Your task to perform on an android device: add a contact in the contacts app Image 0: 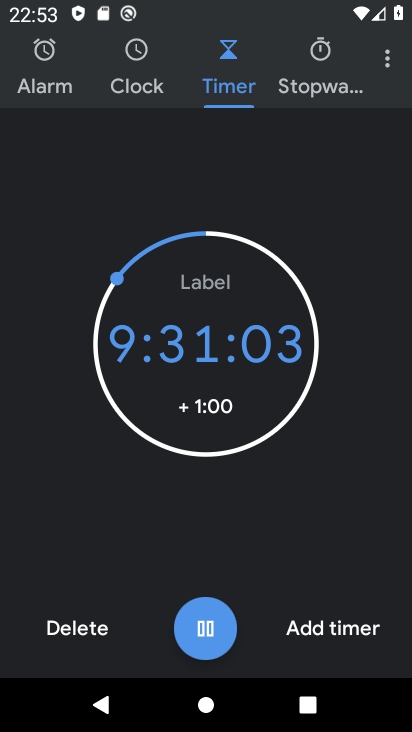
Step 0: press home button
Your task to perform on an android device: add a contact in the contacts app Image 1: 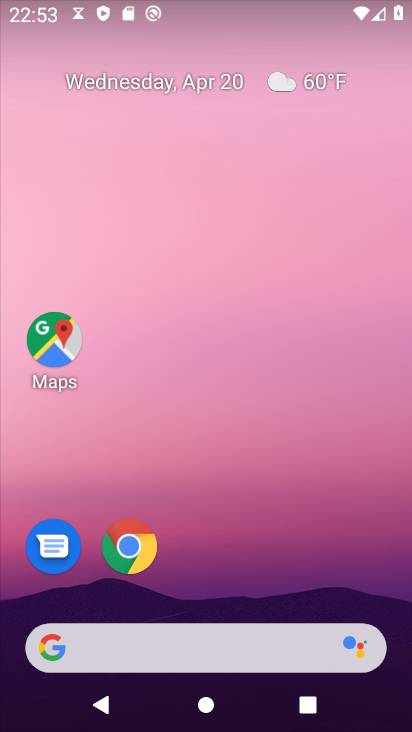
Step 1: drag from (234, 480) to (242, 29)
Your task to perform on an android device: add a contact in the contacts app Image 2: 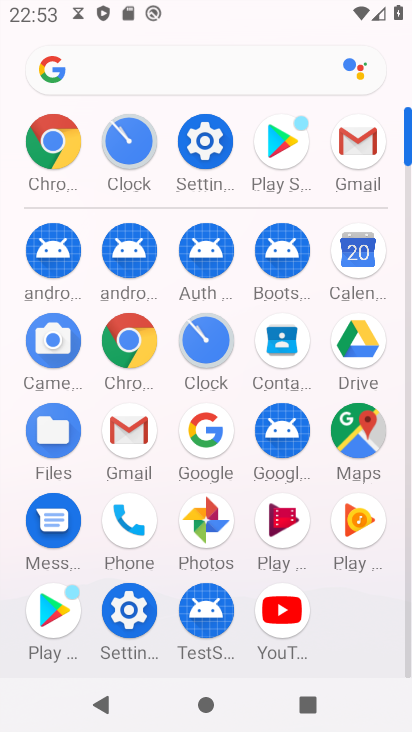
Step 2: click (279, 352)
Your task to perform on an android device: add a contact in the contacts app Image 3: 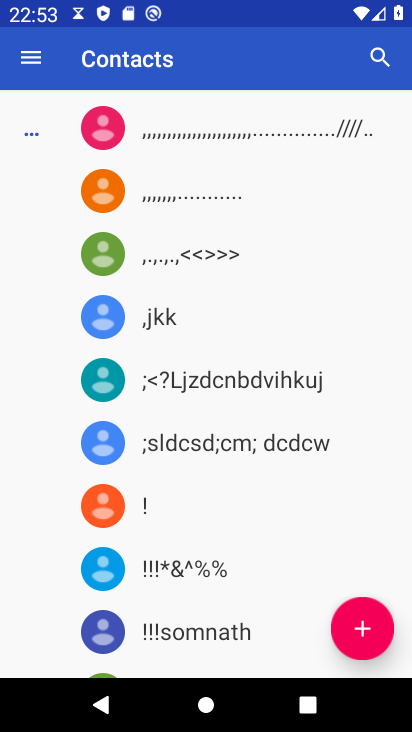
Step 3: click (367, 628)
Your task to perform on an android device: add a contact in the contacts app Image 4: 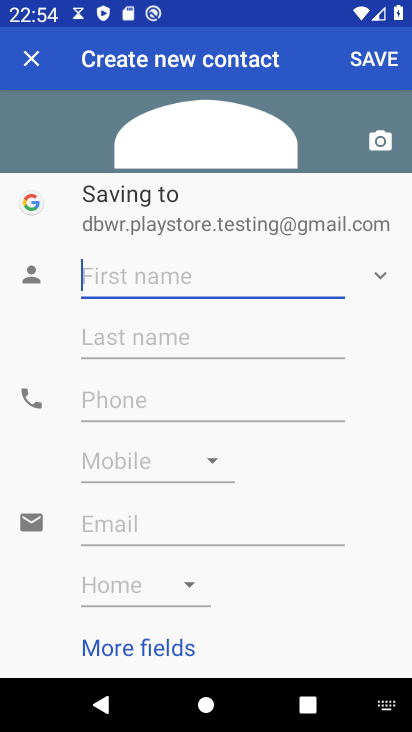
Step 4: type "rgher"
Your task to perform on an android device: add a contact in the contacts app Image 5: 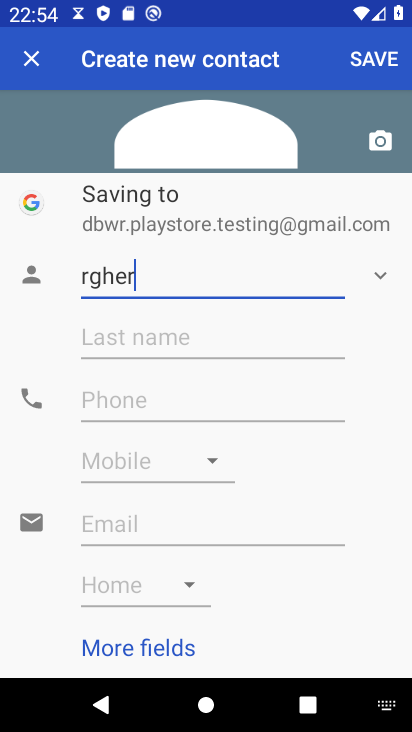
Step 5: type ""
Your task to perform on an android device: add a contact in the contacts app Image 6: 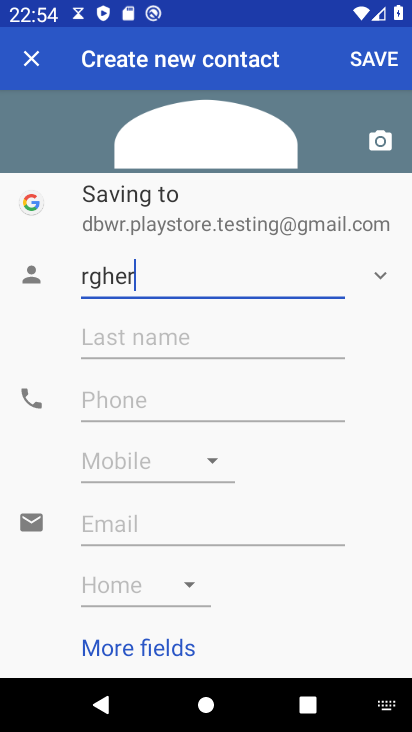
Step 6: click (257, 337)
Your task to perform on an android device: add a contact in the contacts app Image 7: 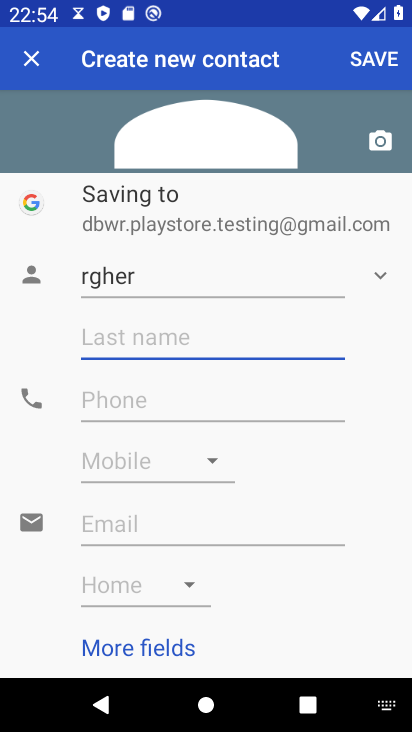
Step 7: type "rtrter"
Your task to perform on an android device: add a contact in the contacts app Image 8: 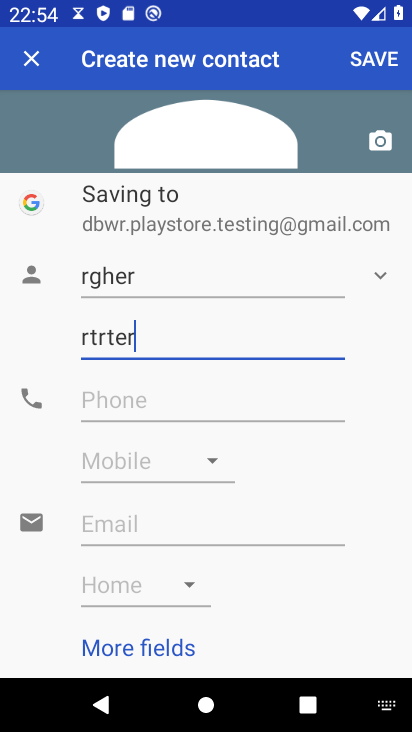
Step 8: type ""
Your task to perform on an android device: add a contact in the contacts app Image 9: 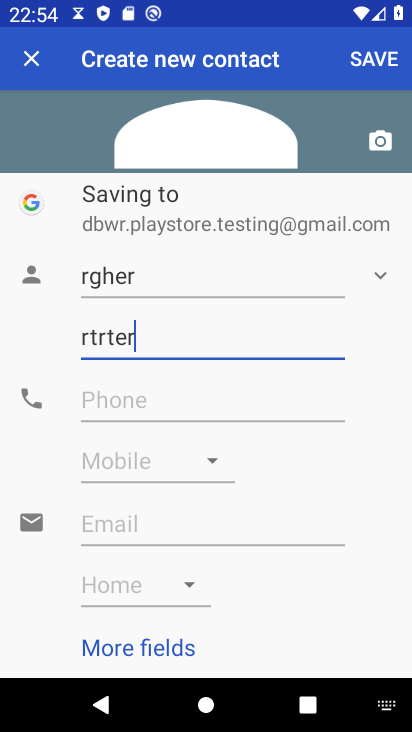
Step 9: click (232, 399)
Your task to perform on an android device: add a contact in the contacts app Image 10: 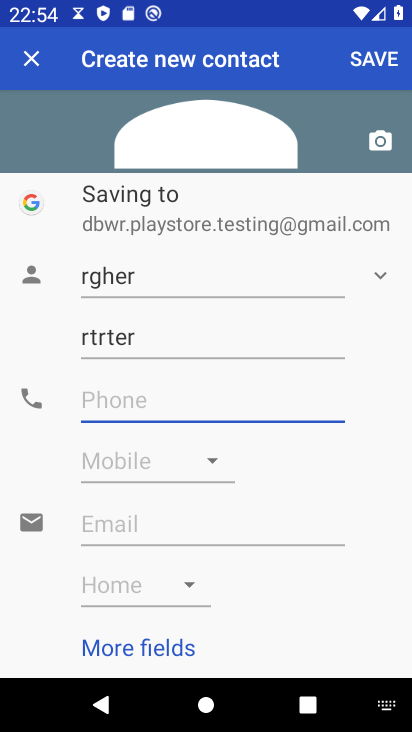
Step 10: type "4345345645"
Your task to perform on an android device: add a contact in the contacts app Image 11: 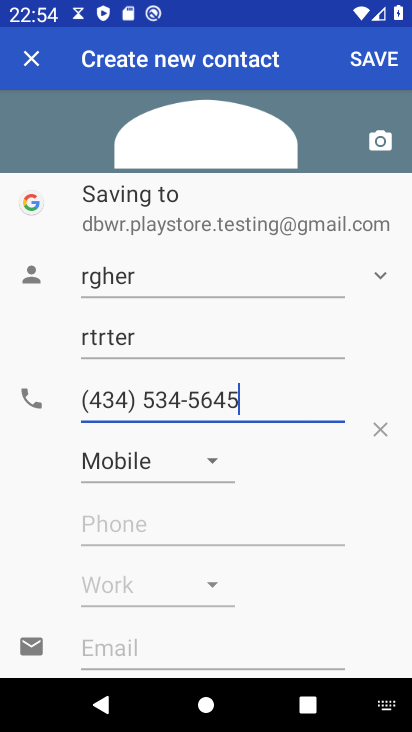
Step 11: type ""
Your task to perform on an android device: add a contact in the contacts app Image 12: 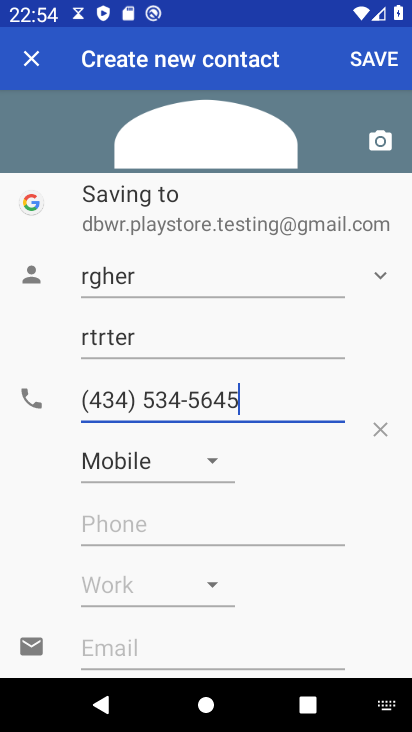
Step 12: click (387, 56)
Your task to perform on an android device: add a contact in the contacts app Image 13: 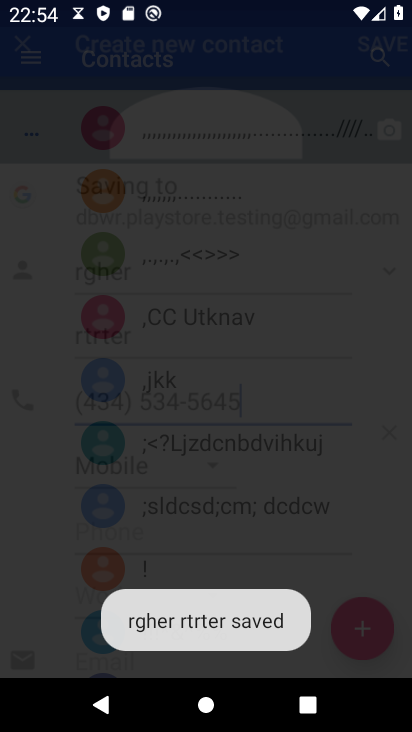
Step 13: task complete